Your task to perform on an android device: Go to internet settings Image 0: 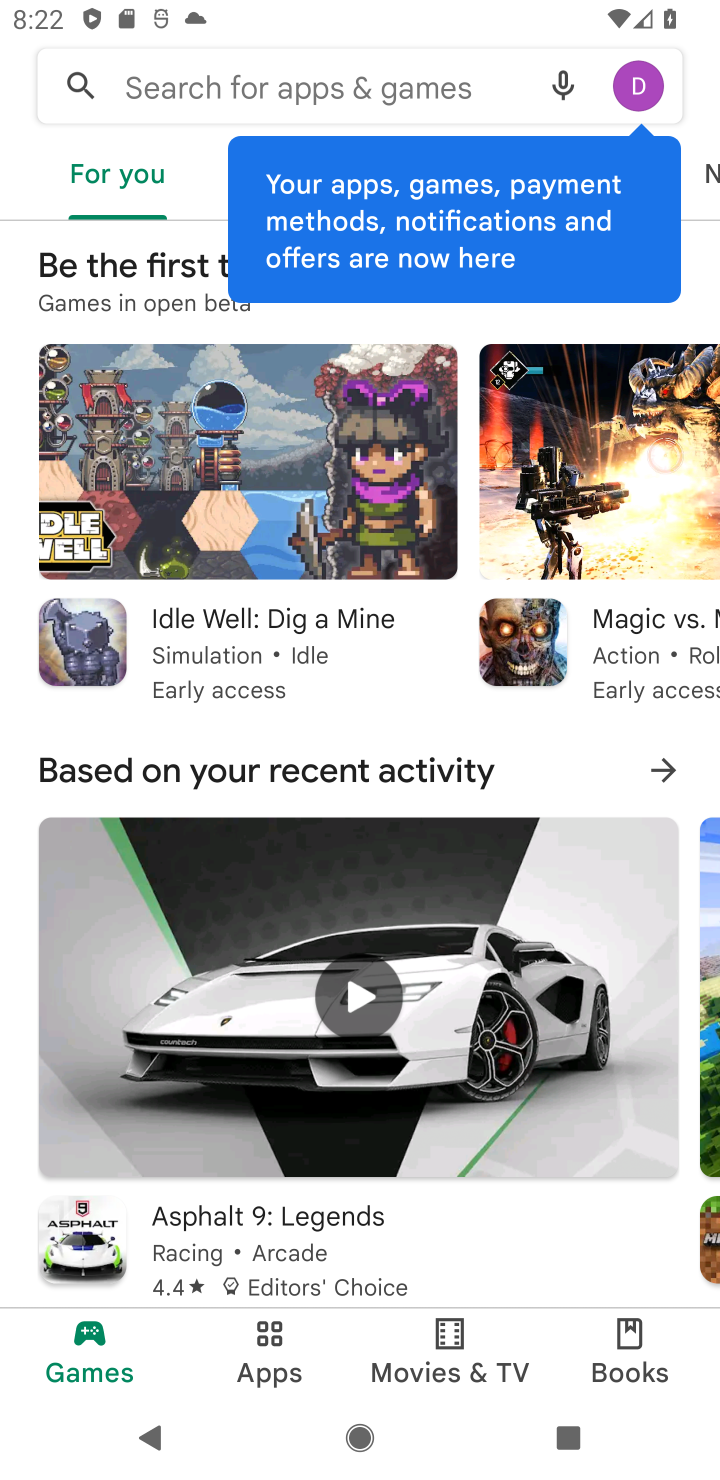
Step 0: press home button
Your task to perform on an android device: Go to internet settings Image 1: 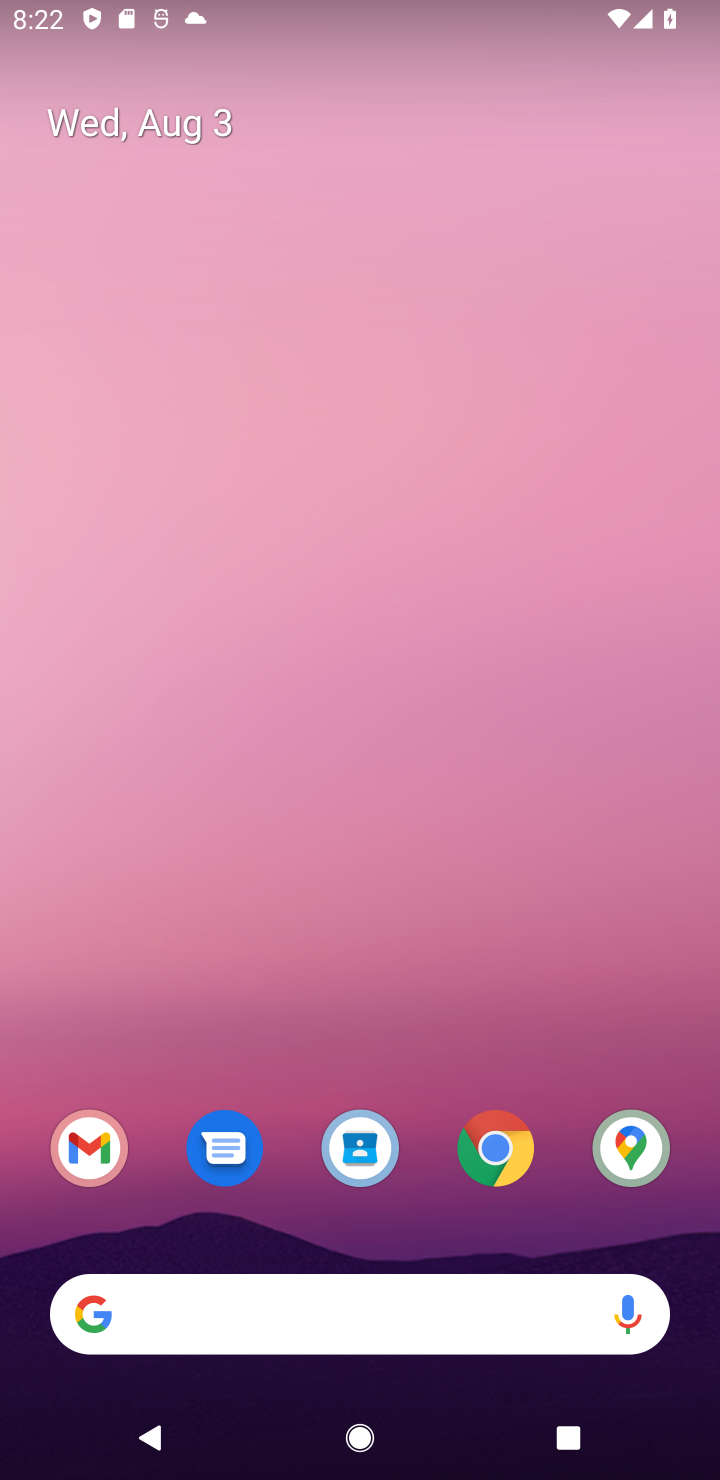
Step 1: drag from (559, 1011) to (423, 108)
Your task to perform on an android device: Go to internet settings Image 2: 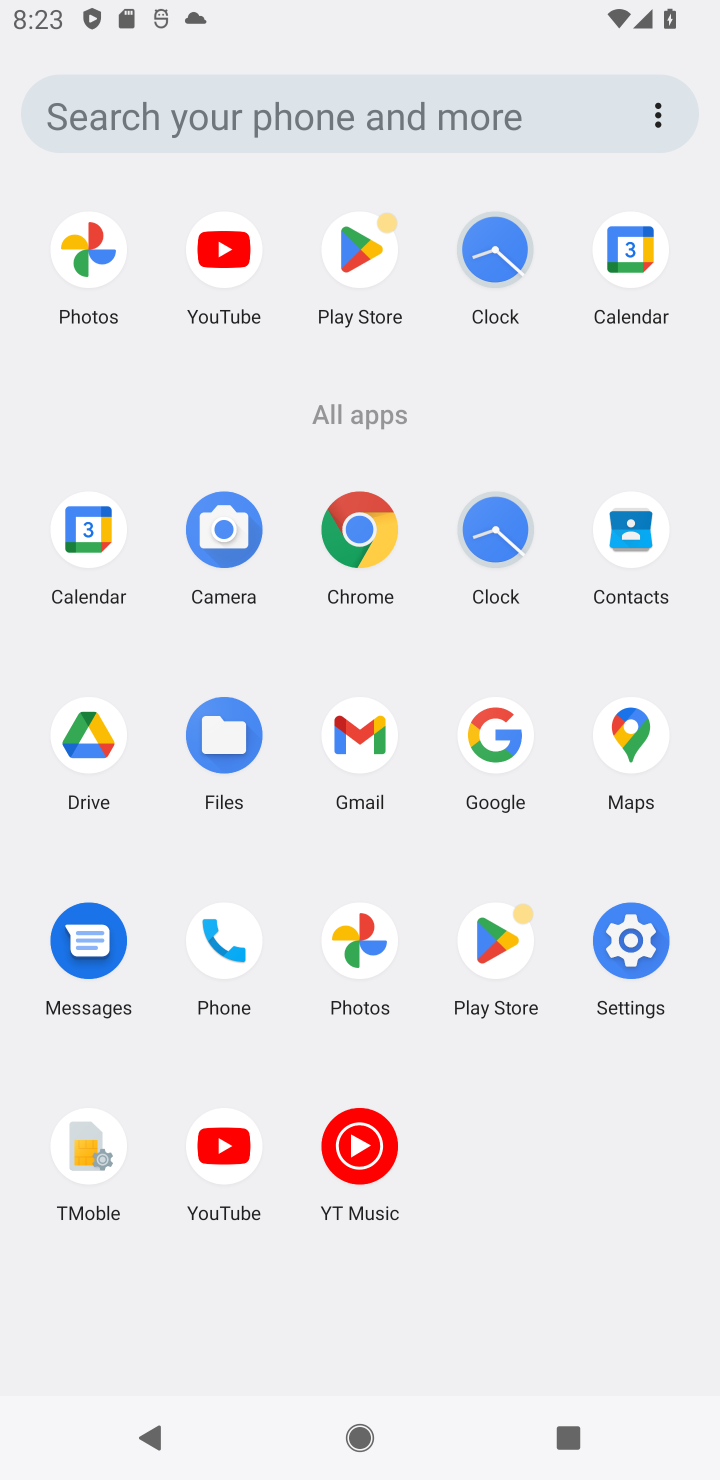
Step 2: click (641, 958)
Your task to perform on an android device: Go to internet settings Image 3: 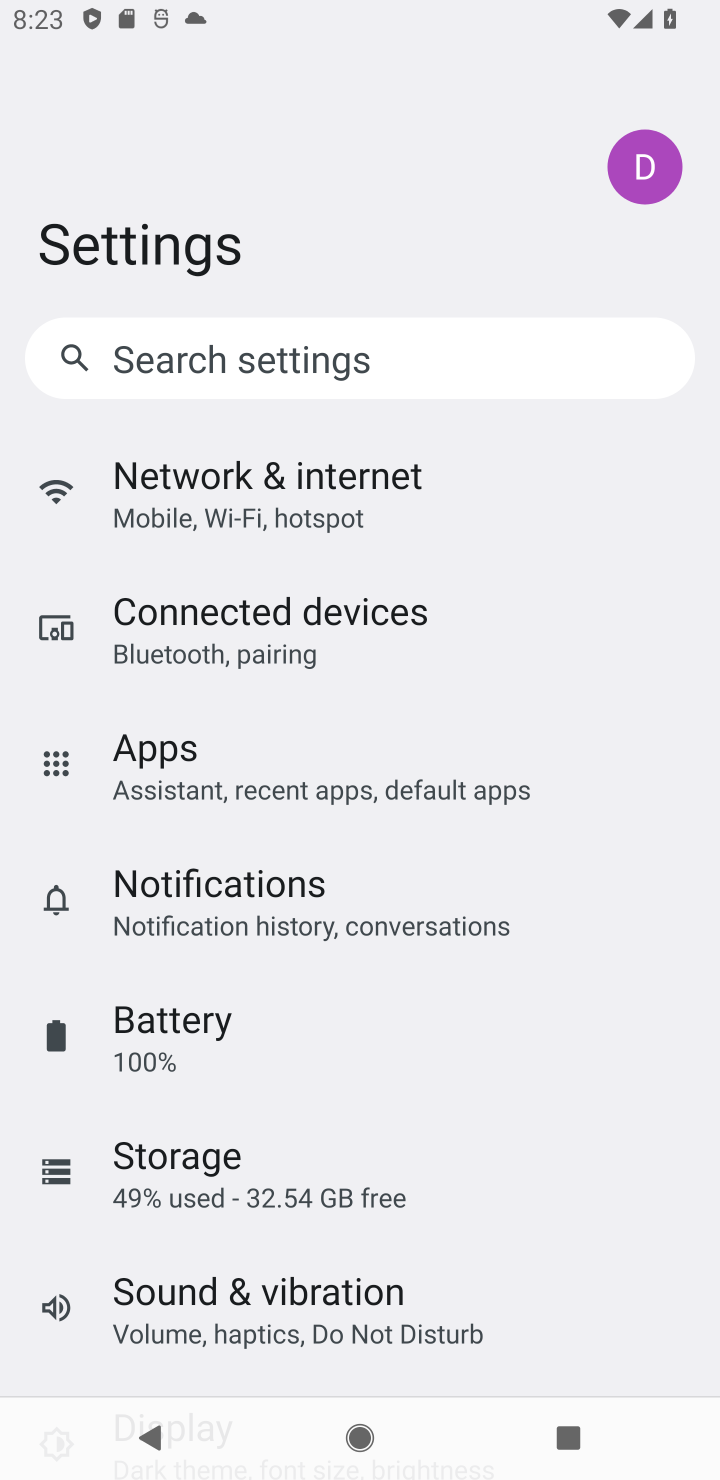
Step 3: click (280, 521)
Your task to perform on an android device: Go to internet settings Image 4: 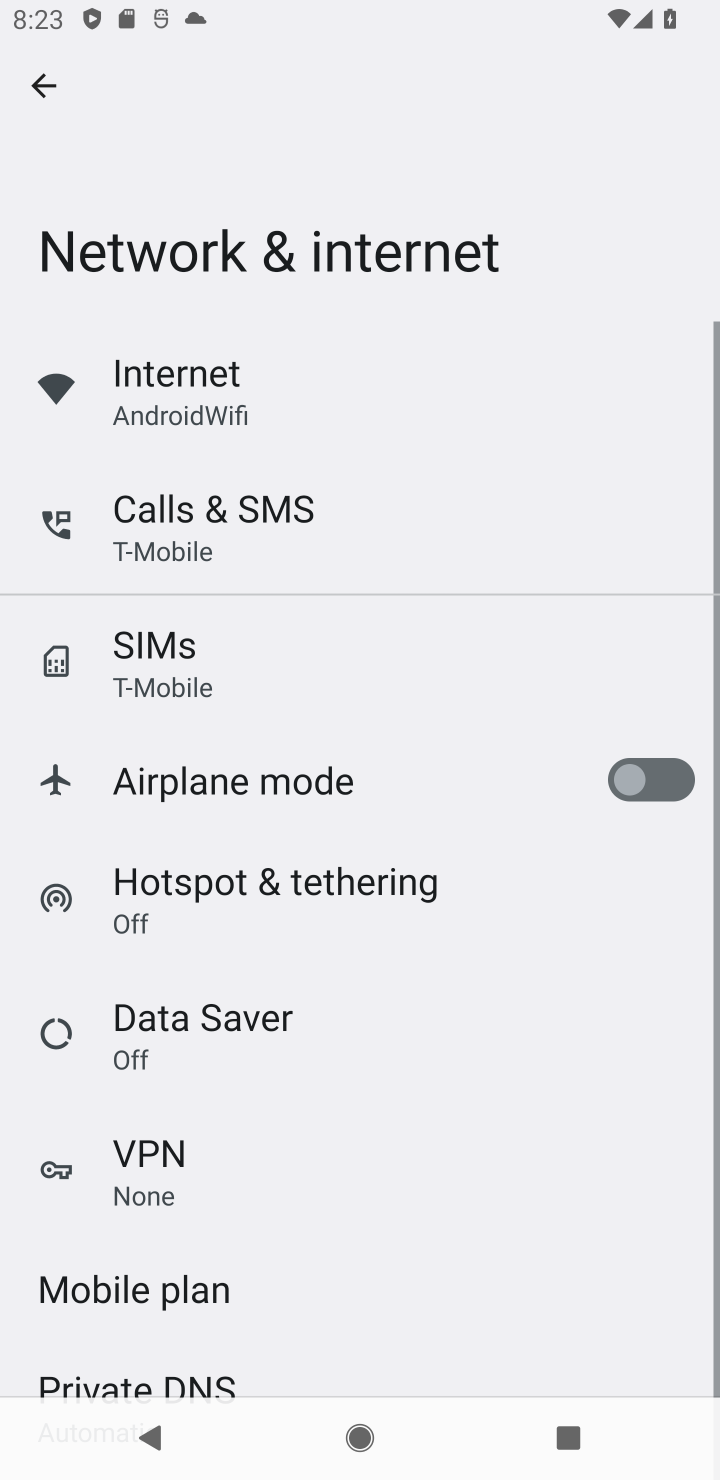
Step 4: task complete